Your task to perform on an android device: Go to Amazon Image 0: 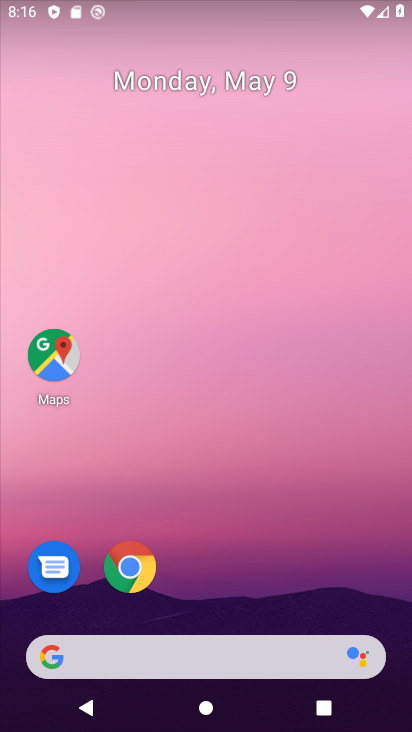
Step 0: press home button
Your task to perform on an android device: Go to Amazon Image 1: 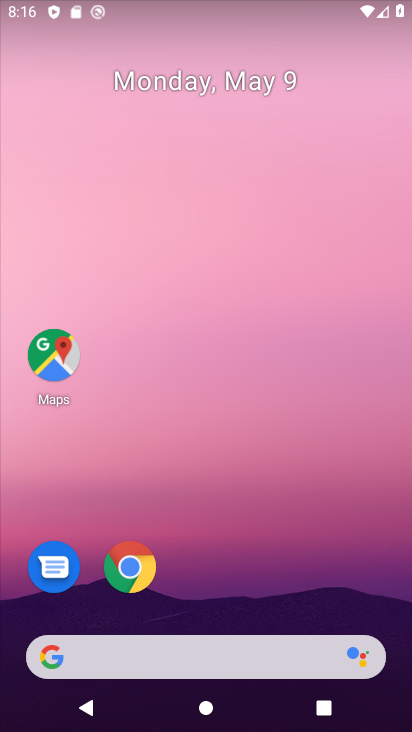
Step 1: drag from (350, 602) to (305, 161)
Your task to perform on an android device: Go to Amazon Image 2: 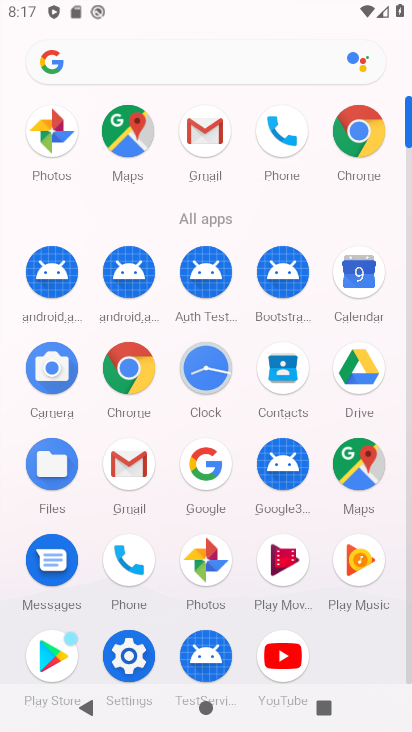
Step 2: drag from (337, 618) to (314, 336)
Your task to perform on an android device: Go to Amazon Image 3: 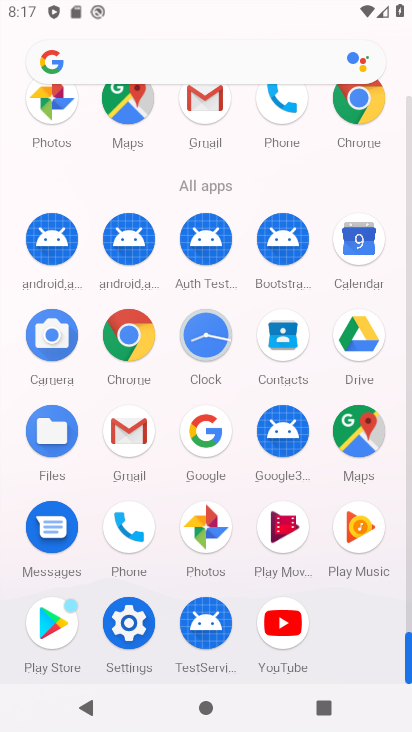
Step 3: click (118, 350)
Your task to perform on an android device: Go to Amazon Image 4: 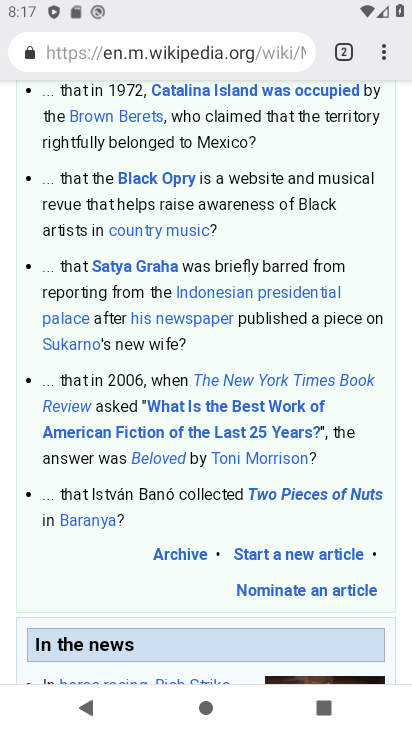
Step 4: click (351, 50)
Your task to perform on an android device: Go to Amazon Image 5: 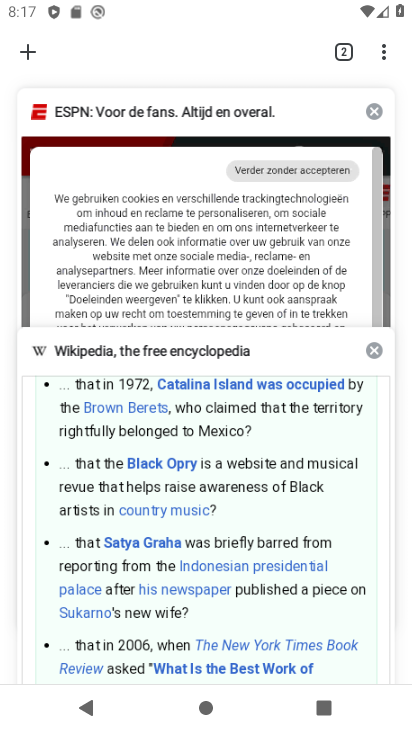
Step 5: click (30, 50)
Your task to perform on an android device: Go to Amazon Image 6: 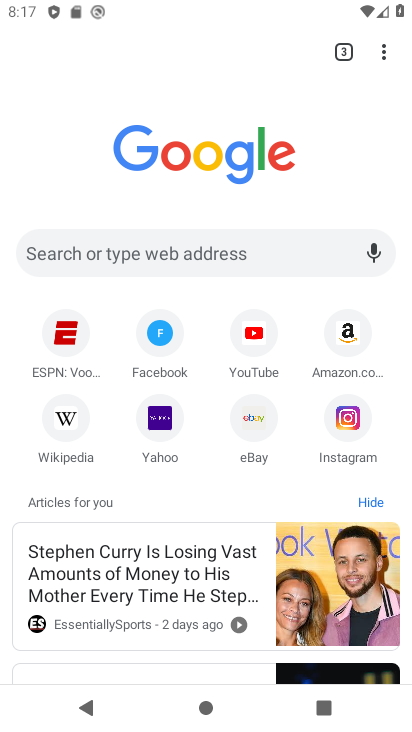
Step 6: click (362, 338)
Your task to perform on an android device: Go to Amazon Image 7: 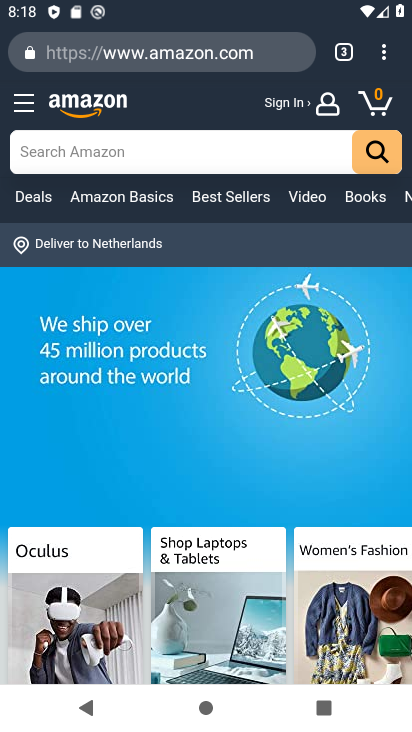
Step 7: task complete